Your task to perform on an android device: turn on improve location accuracy Image 0: 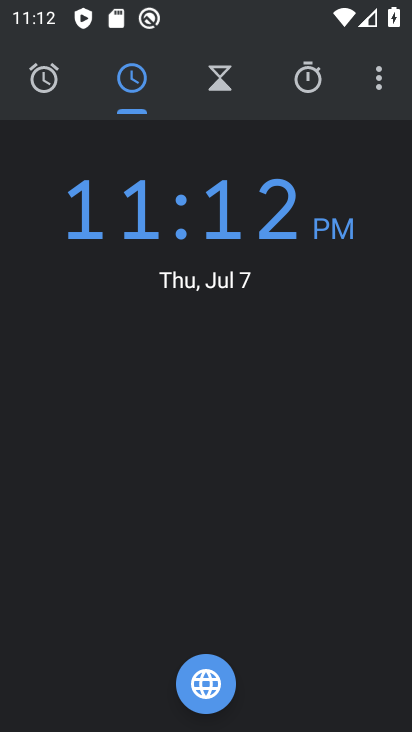
Step 0: drag from (362, 594) to (379, 328)
Your task to perform on an android device: turn on improve location accuracy Image 1: 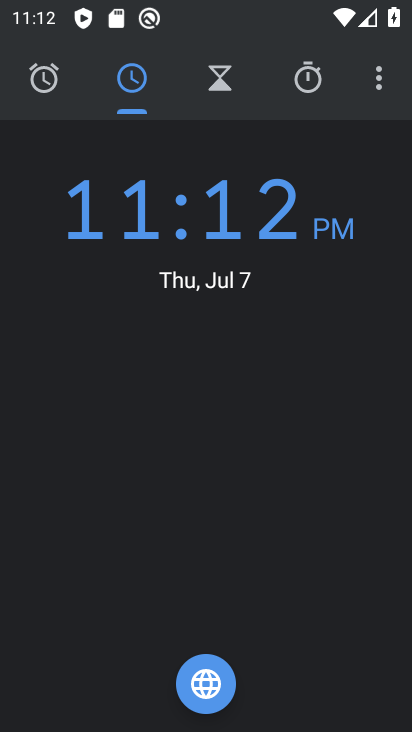
Step 1: press home button
Your task to perform on an android device: turn on improve location accuracy Image 2: 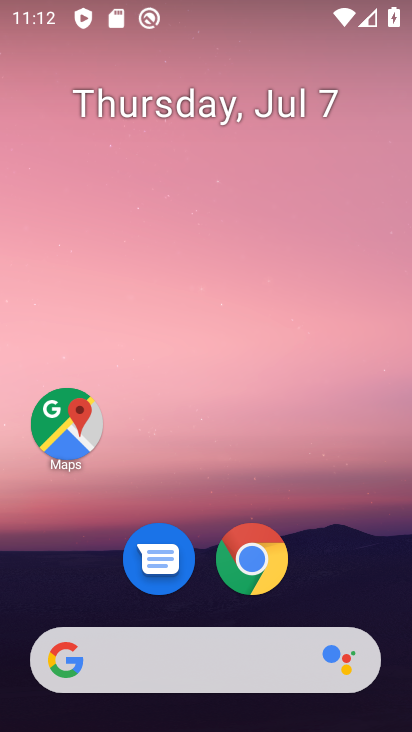
Step 2: drag from (361, 579) to (343, 117)
Your task to perform on an android device: turn on improve location accuracy Image 3: 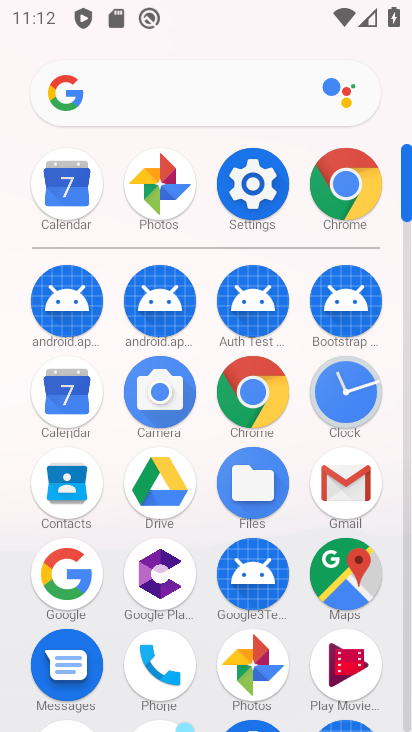
Step 3: click (270, 193)
Your task to perform on an android device: turn on improve location accuracy Image 4: 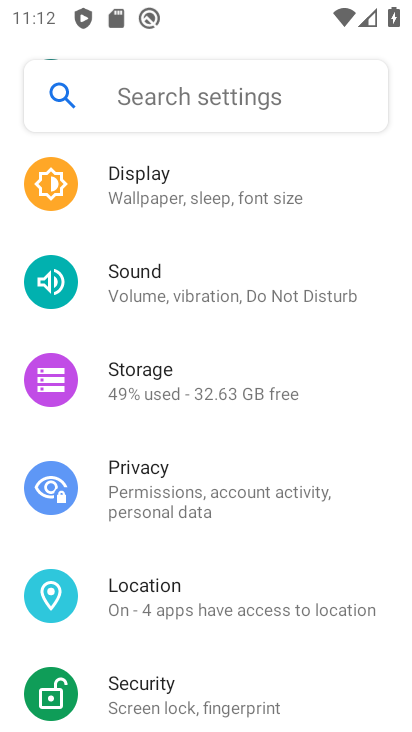
Step 4: drag from (365, 404) to (366, 310)
Your task to perform on an android device: turn on improve location accuracy Image 5: 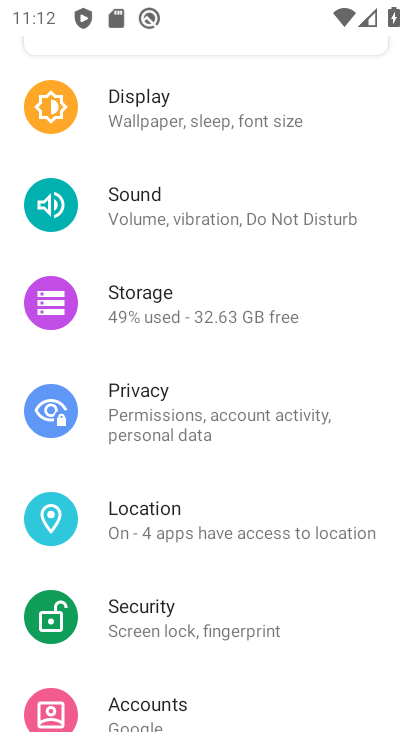
Step 5: drag from (372, 459) to (375, 341)
Your task to perform on an android device: turn on improve location accuracy Image 6: 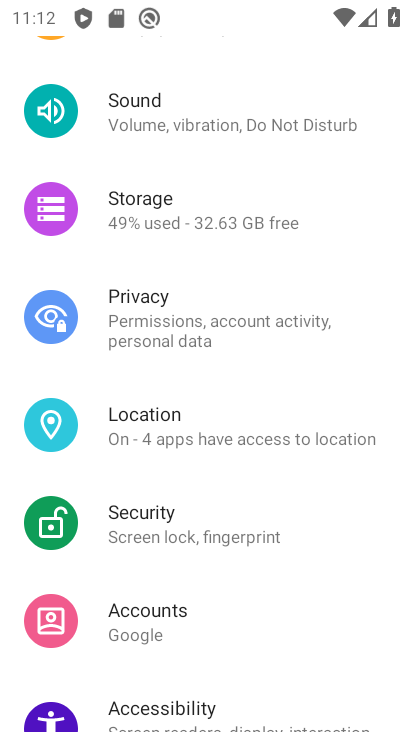
Step 6: drag from (383, 510) to (379, 397)
Your task to perform on an android device: turn on improve location accuracy Image 7: 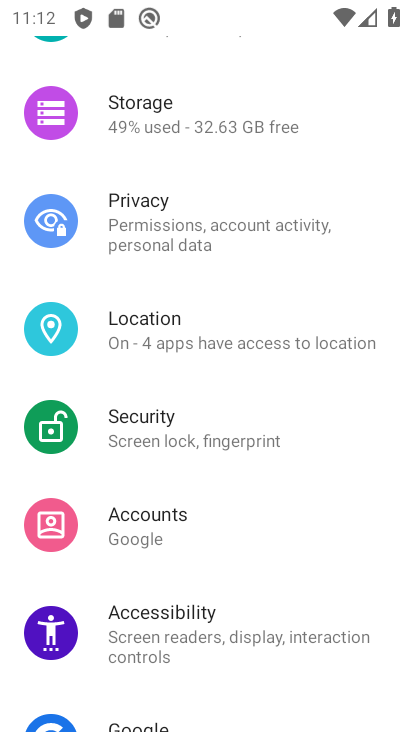
Step 7: drag from (364, 521) to (365, 414)
Your task to perform on an android device: turn on improve location accuracy Image 8: 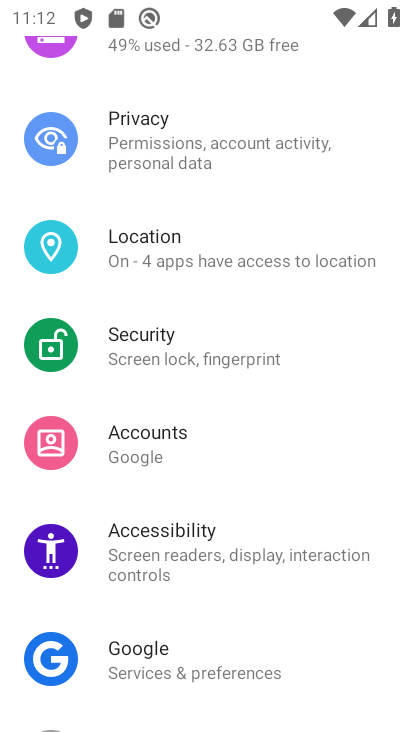
Step 8: click (320, 254)
Your task to perform on an android device: turn on improve location accuracy Image 9: 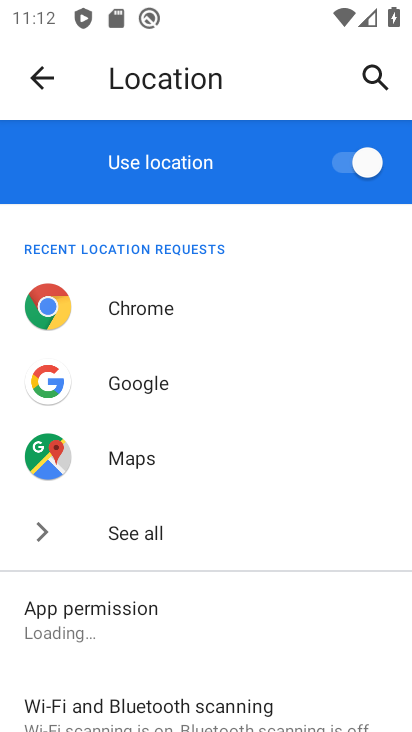
Step 9: drag from (317, 495) to (320, 358)
Your task to perform on an android device: turn on improve location accuracy Image 10: 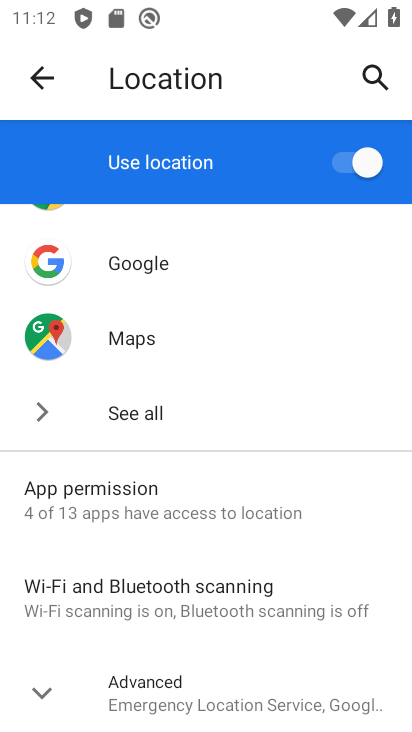
Step 10: drag from (328, 529) to (335, 391)
Your task to perform on an android device: turn on improve location accuracy Image 11: 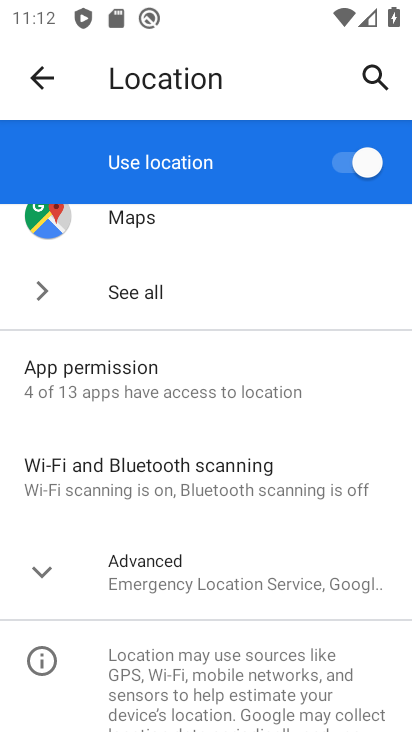
Step 11: drag from (353, 624) to (354, 448)
Your task to perform on an android device: turn on improve location accuracy Image 12: 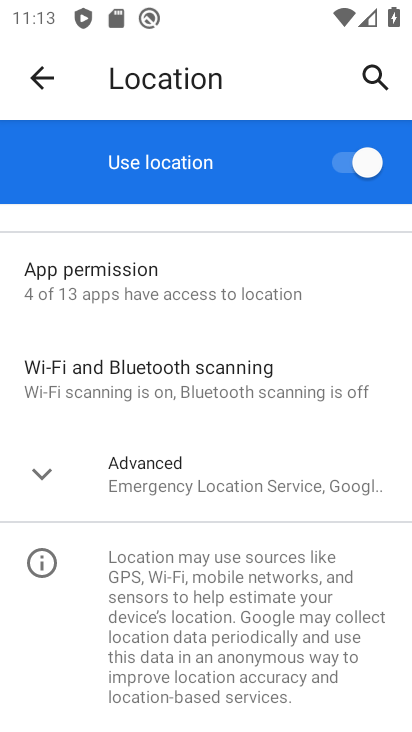
Step 12: click (315, 488)
Your task to perform on an android device: turn on improve location accuracy Image 13: 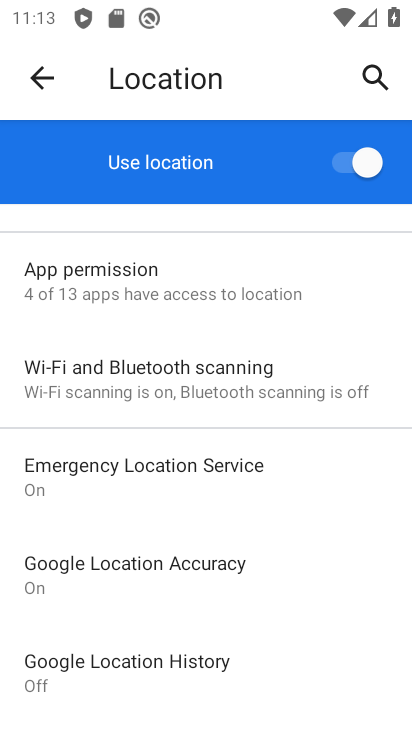
Step 13: drag from (325, 576) to (330, 459)
Your task to perform on an android device: turn on improve location accuracy Image 14: 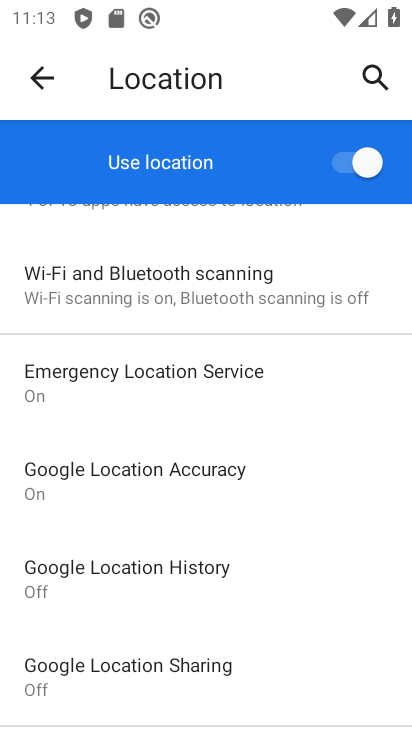
Step 14: drag from (339, 567) to (348, 440)
Your task to perform on an android device: turn on improve location accuracy Image 15: 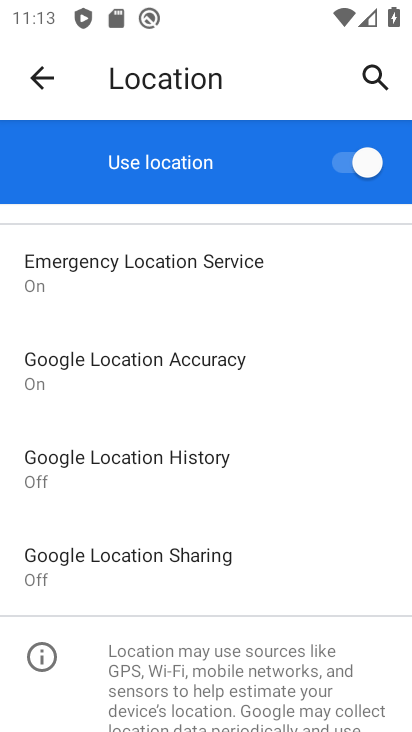
Step 15: drag from (350, 526) to (346, 444)
Your task to perform on an android device: turn on improve location accuracy Image 16: 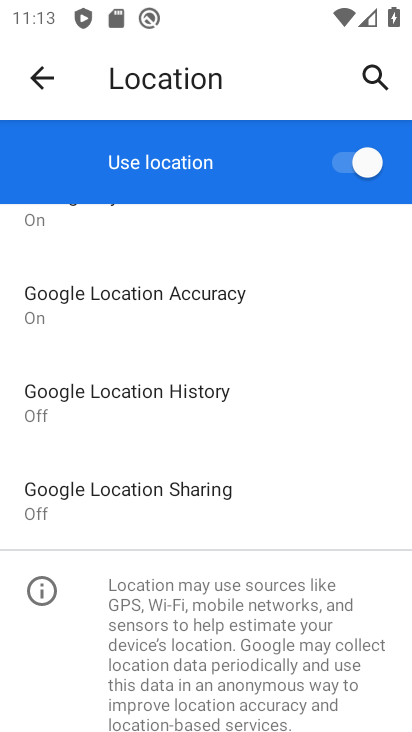
Step 16: click (240, 288)
Your task to perform on an android device: turn on improve location accuracy Image 17: 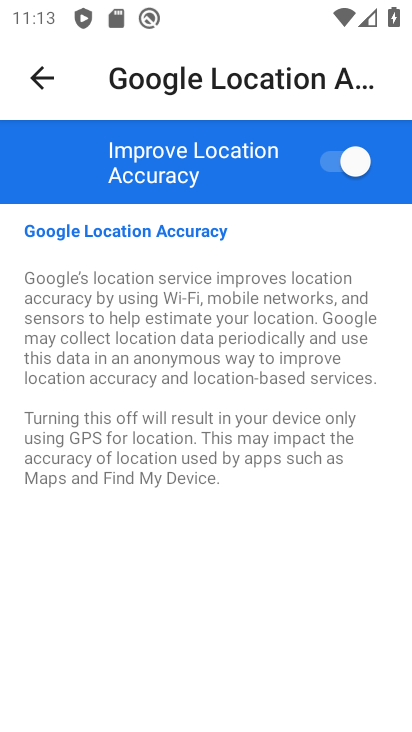
Step 17: task complete